Your task to perform on an android device: Search for vegetarian restaurants on Maps Image 0: 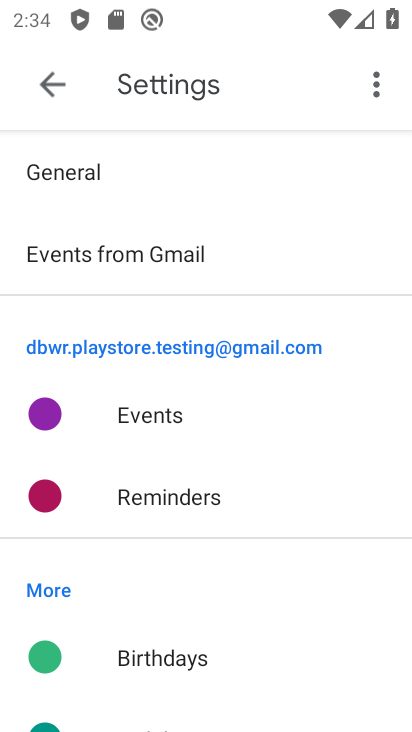
Step 0: press home button
Your task to perform on an android device: Search for vegetarian restaurants on Maps Image 1: 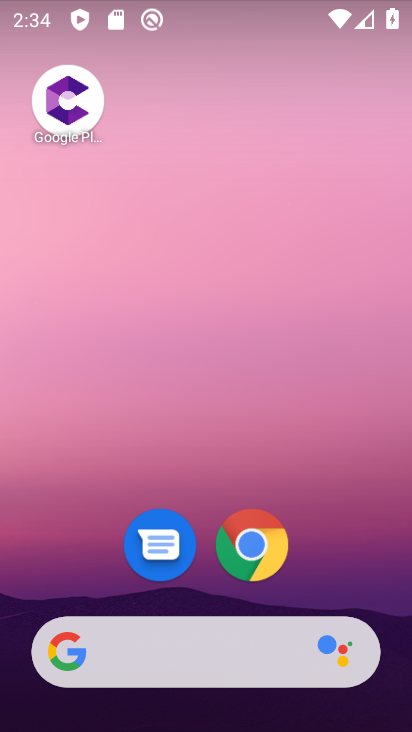
Step 1: drag from (218, 591) to (289, 126)
Your task to perform on an android device: Search for vegetarian restaurants on Maps Image 2: 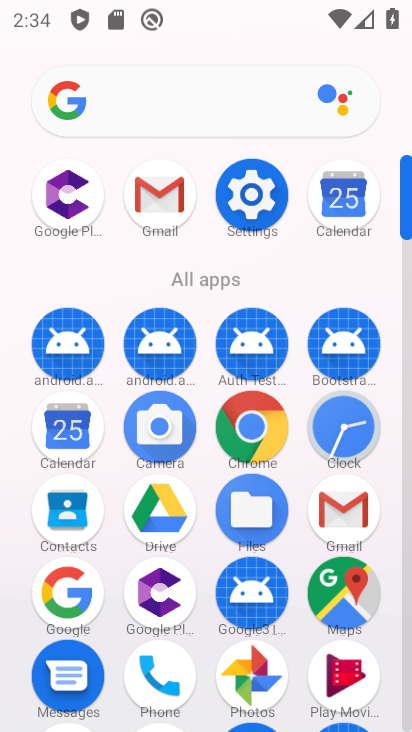
Step 2: drag from (201, 607) to (303, 371)
Your task to perform on an android device: Search for vegetarian restaurants on Maps Image 3: 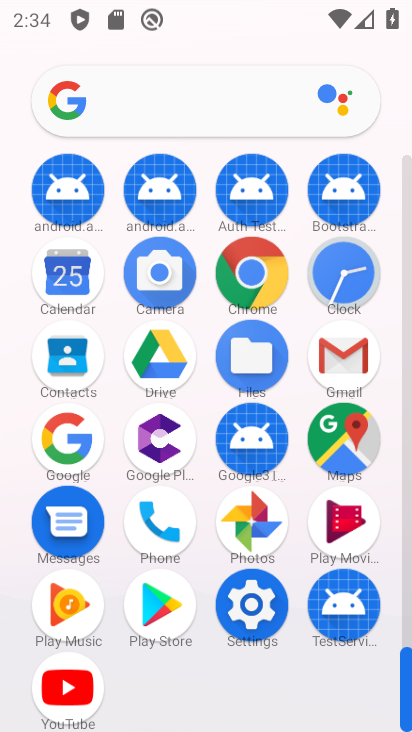
Step 3: drag from (343, 509) to (354, 465)
Your task to perform on an android device: Search for vegetarian restaurants on Maps Image 4: 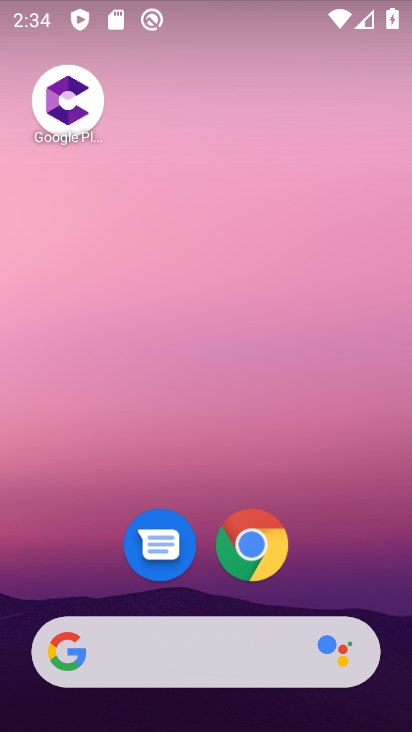
Step 4: click (346, 447)
Your task to perform on an android device: Search for vegetarian restaurants on Maps Image 5: 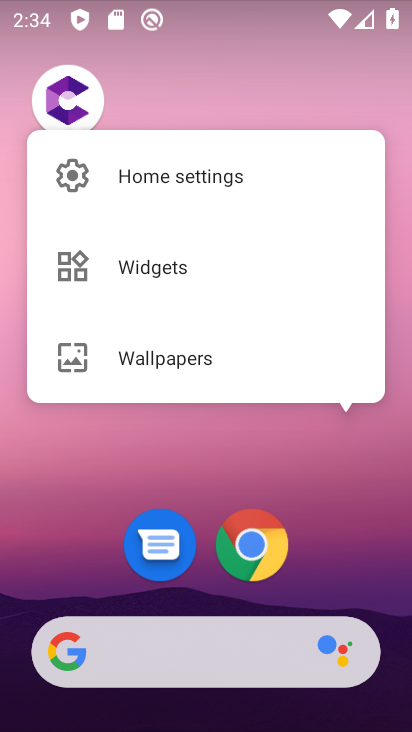
Step 5: press home button
Your task to perform on an android device: Search for vegetarian restaurants on Maps Image 6: 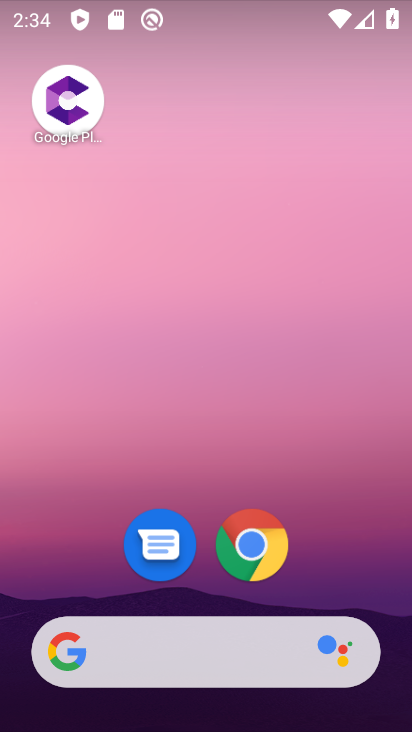
Step 6: drag from (286, 450) to (366, 138)
Your task to perform on an android device: Search for vegetarian restaurants on Maps Image 7: 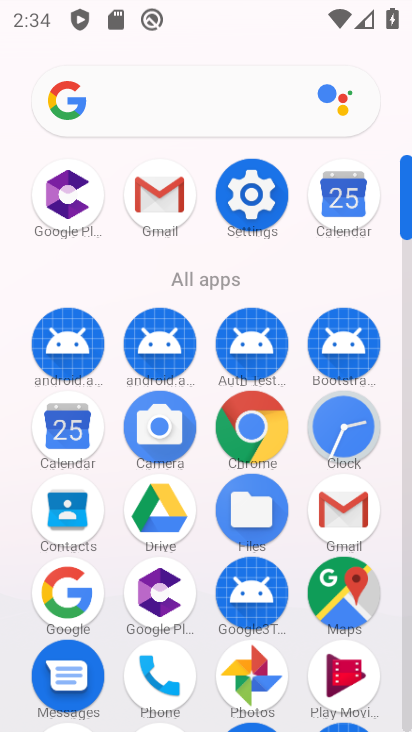
Step 7: drag from (354, 594) to (93, 414)
Your task to perform on an android device: Search for vegetarian restaurants on Maps Image 8: 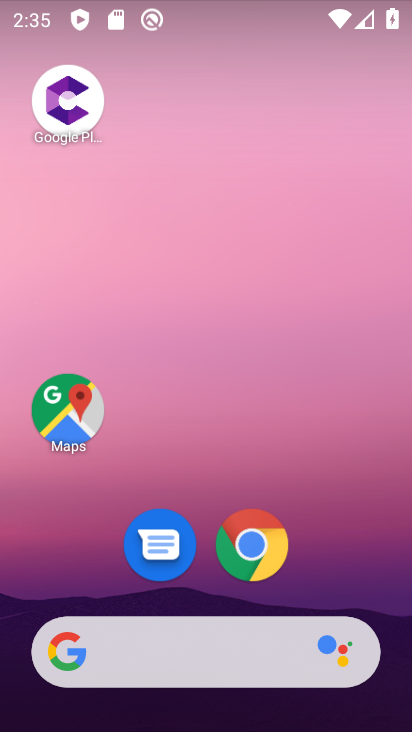
Step 8: click (67, 414)
Your task to perform on an android device: Search for vegetarian restaurants on Maps Image 9: 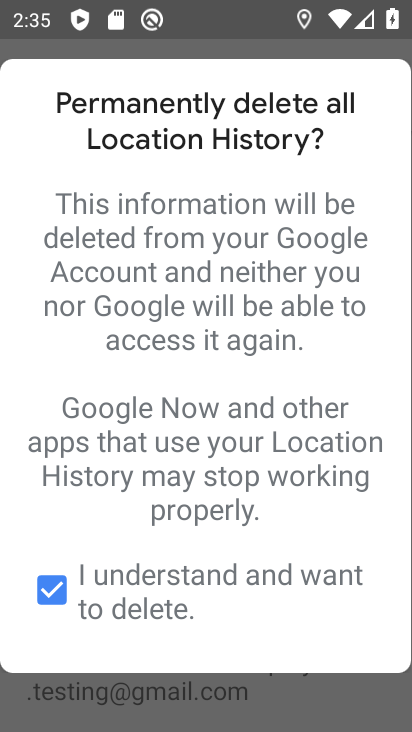
Step 9: press back button
Your task to perform on an android device: Search for vegetarian restaurants on Maps Image 10: 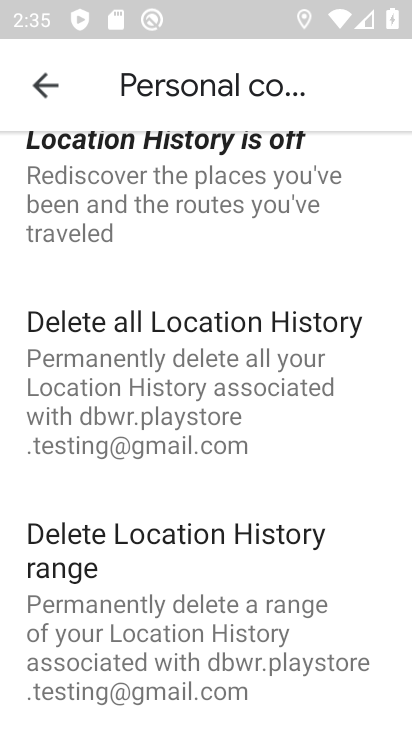
Step 10: click (42, 74)
Your task to perform on an android device: Search for vegetarian restaurants on Maps Image 11: 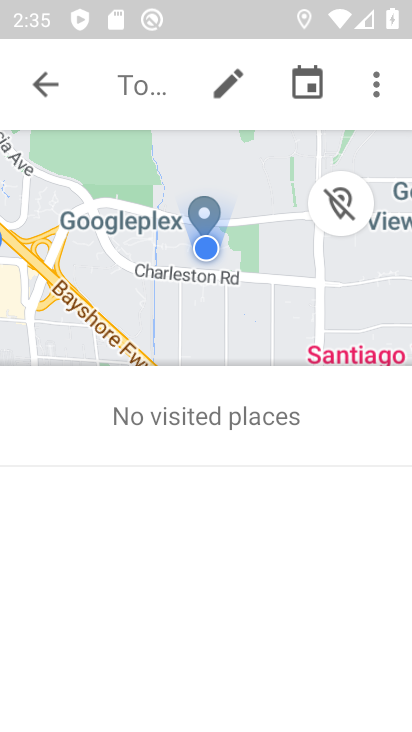
Step 11: click (42, 74)
Your task to perform on an android device: Search for vegetarian restaurants on Maps Image 12: 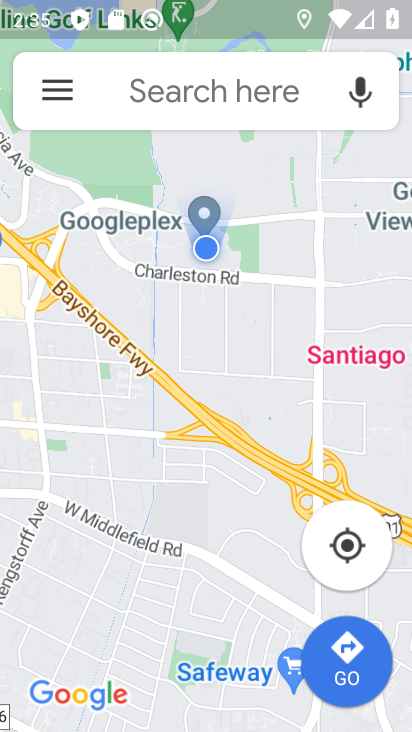
Step 12: click (223, 85)
Your task to perform on an android device: Search for vegetarian restaurants on Maps Image 13: 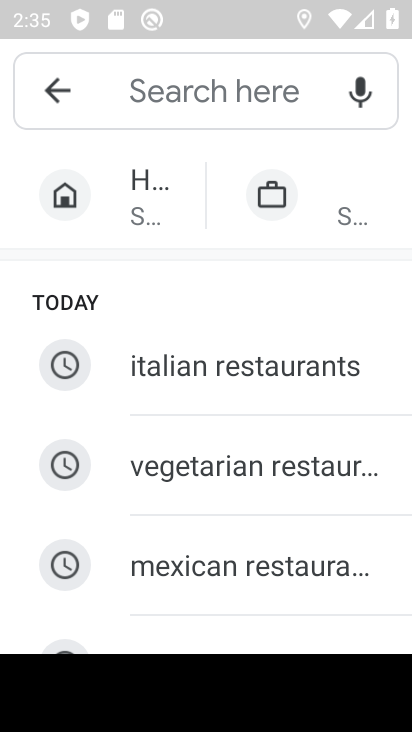
Step 13: click (218, 465)
Your task to perform on an android device: Search for vegetarian restaurants on Maps Image 14: 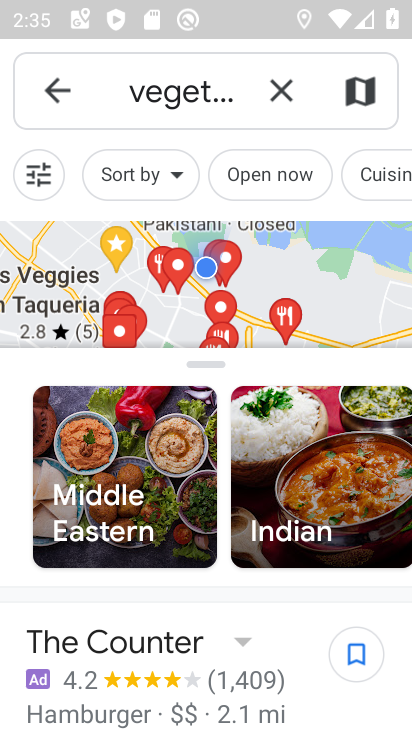
Step 14: task complete